Your task to perform on an android device: refresh tabs in the chrome app Image 0: 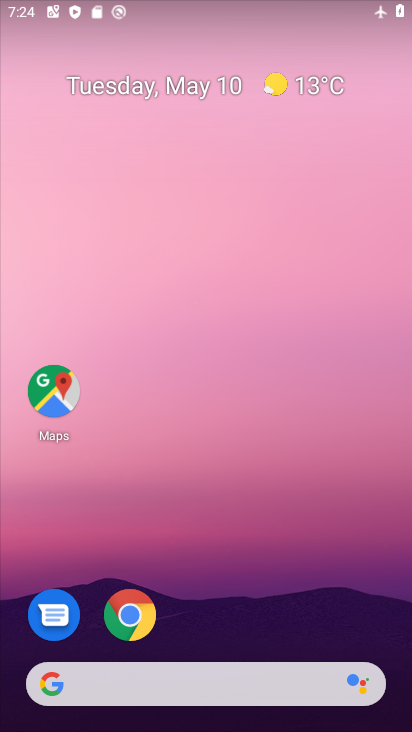
Step 0: click (130, 614)
Your task to perform on an android device: refresh tabs in the chrome app Image 1: 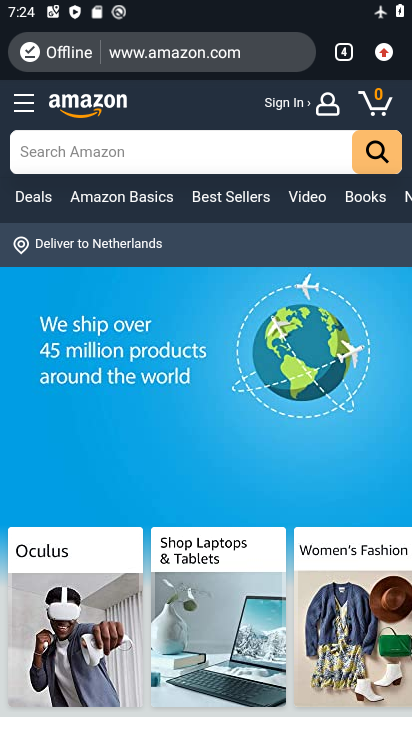
Step 1: click (378, 42)
Your task to perform on an android device: refresh tabs in the chrome app Image 2: 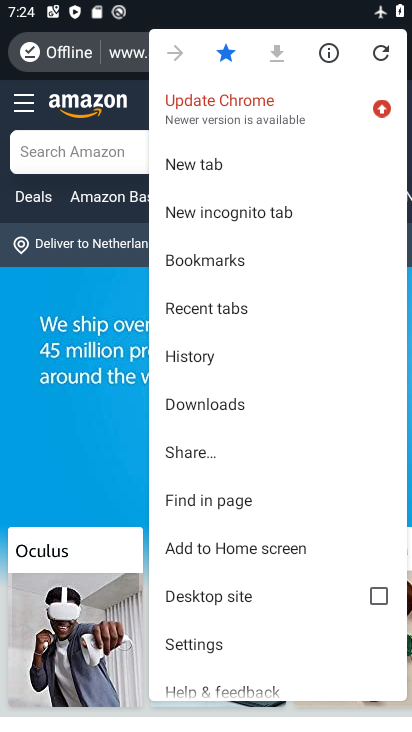
Step 2: click (377, 53)
Your task to perform on an android device: refresh tabs in the chrome app Image 3: 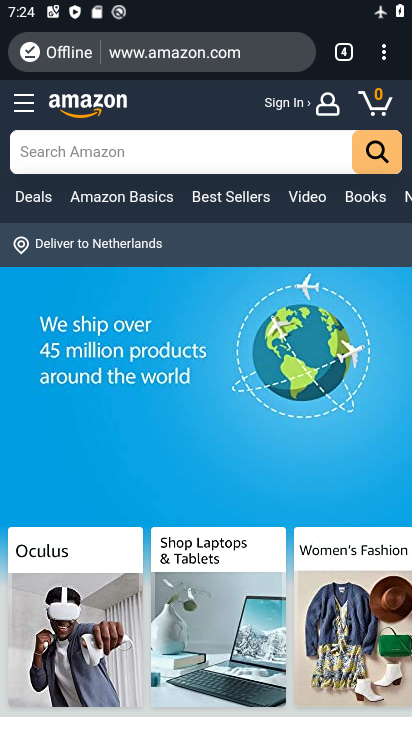
Step 3: task complete